Your task to perform on an android device: How do I get to the nearest T-Mobile Store? Image 0: 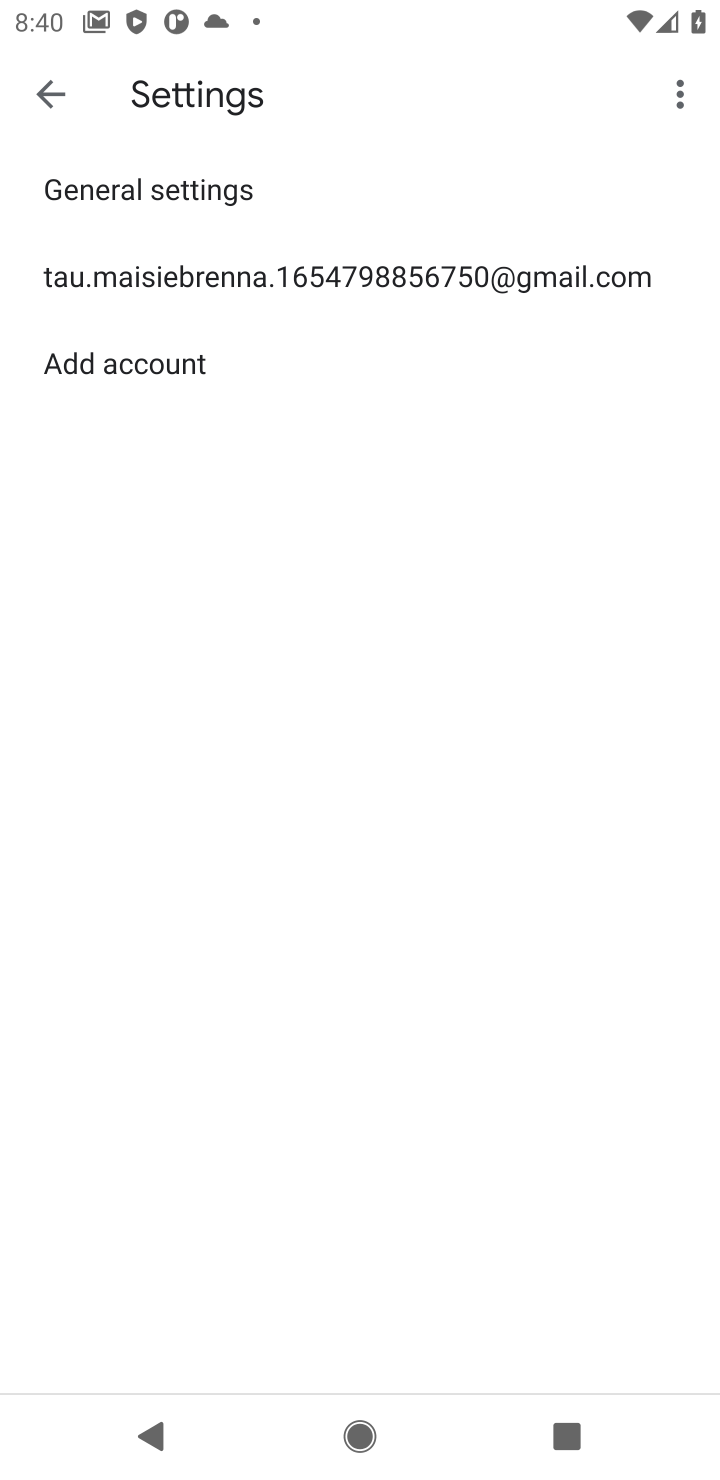
Step 0: press home button
Your task to perform on an android device: How do I get to the nearest T-Mobile Store? Image 1: 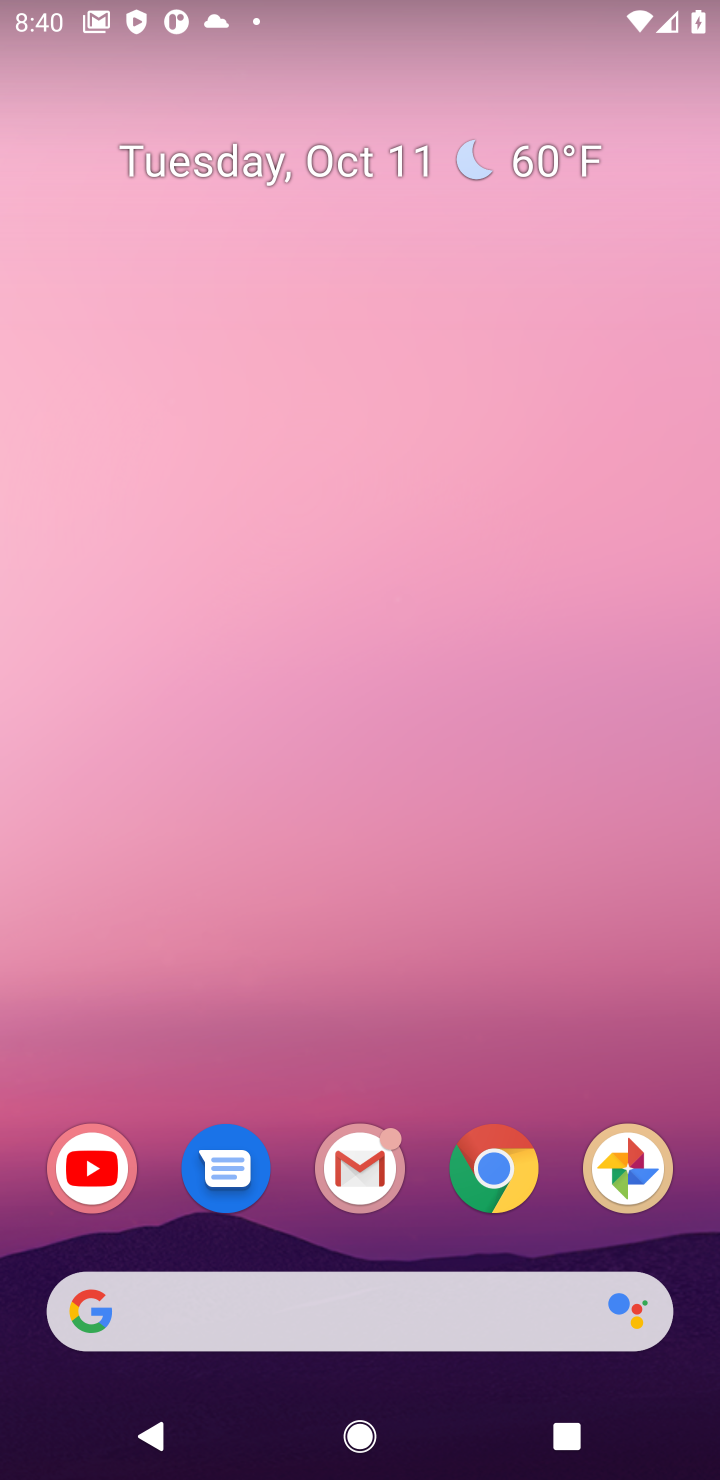
Step 1: click (509, 1173)
Your task to perform on an android device: How do I get to the nearest T-Mobile Store? Image 2: 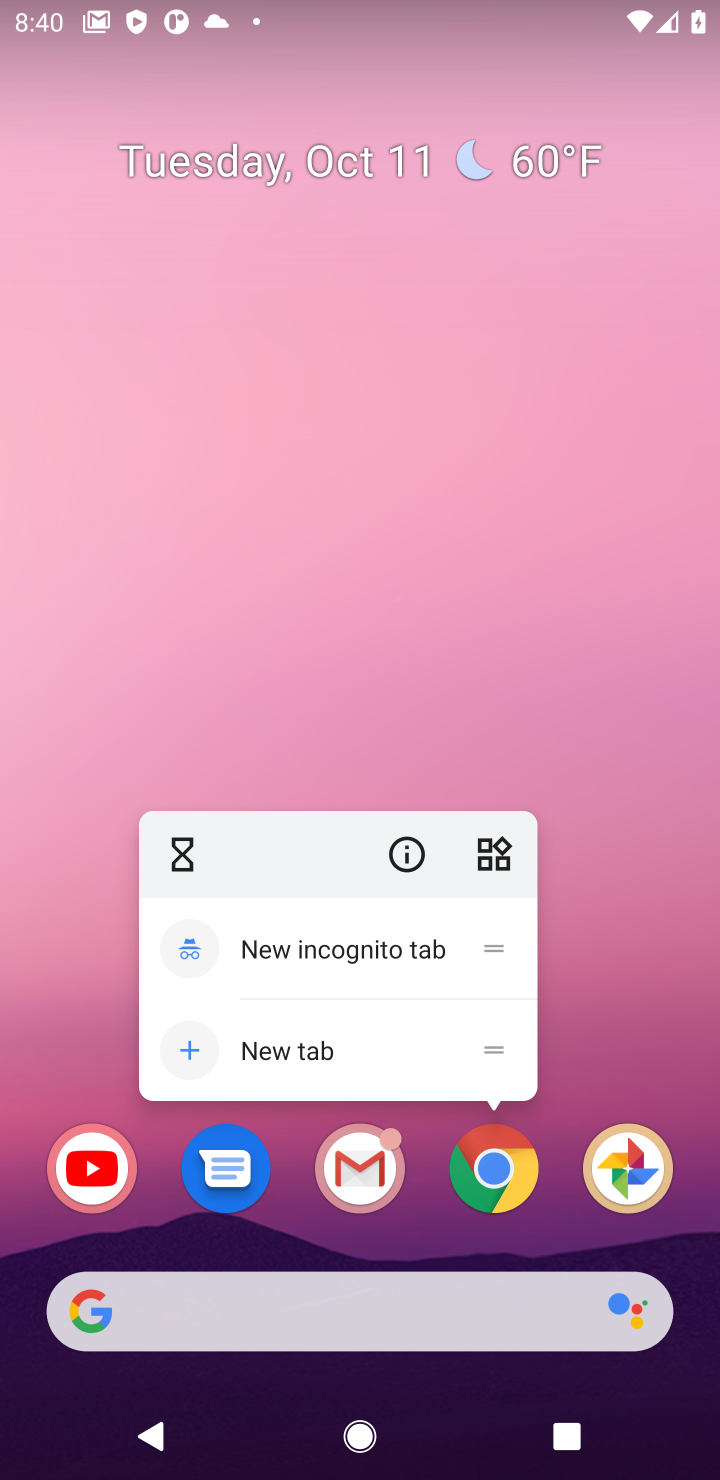
Step 2: press home button
Your task to perform on an android device: How do I get to the nearest T-Mobile Store? Image 3: 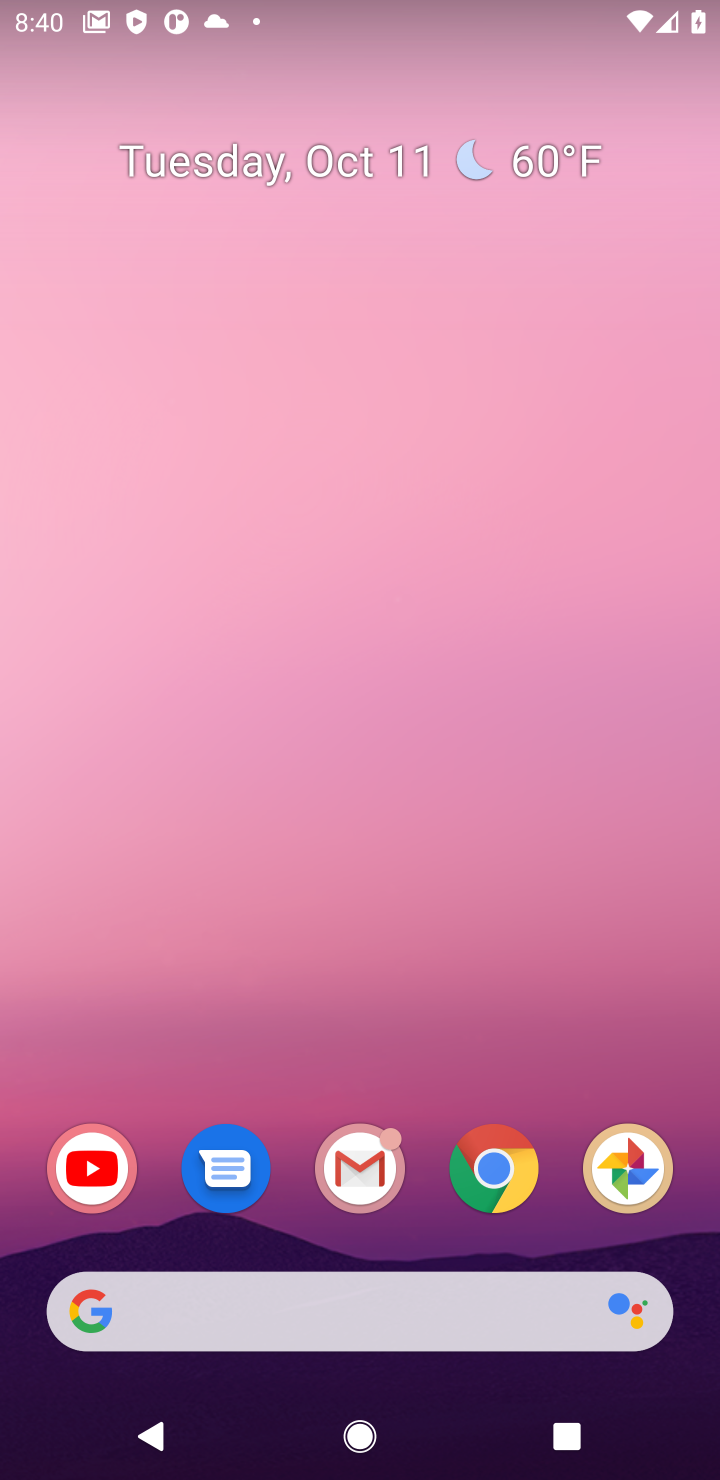
Step 3: press back button
Your task to perform on an android device: How do I get to the nearest T-Mobile Store? Image 4: 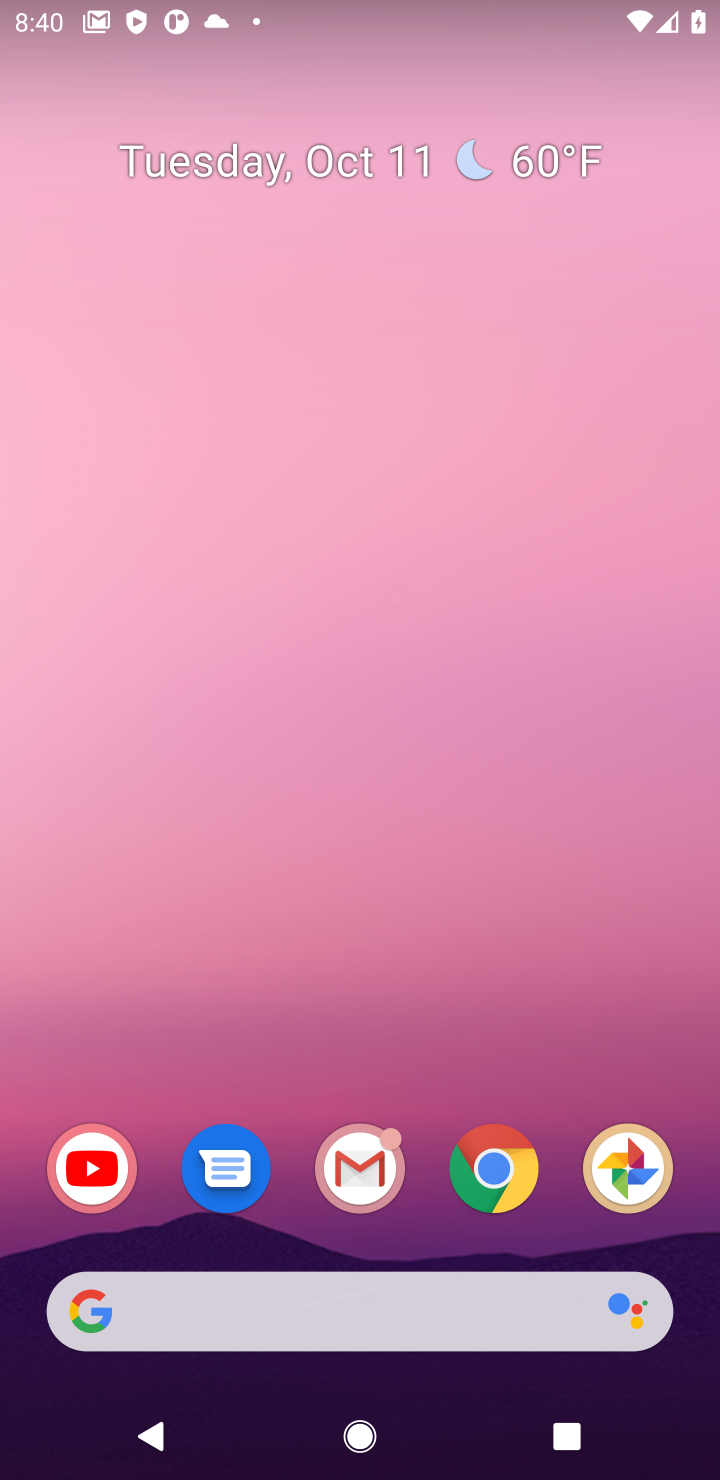
Step 4: press back button
Your task to perform on an android device: How do I get to the nearest T-Mobile Store? Image 5: 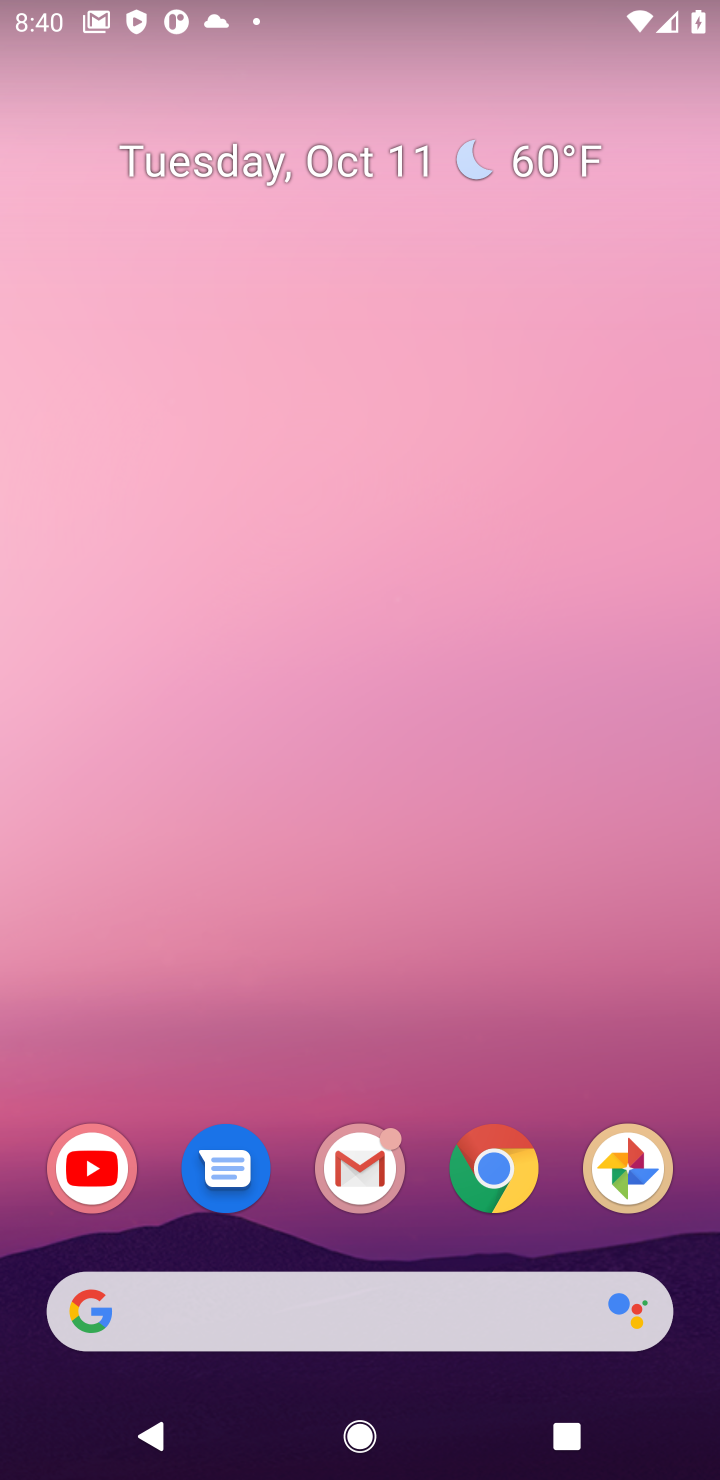
Step 5: press home button
Your task to perform on an android device: How do I get to the nearest T-Mobile Store? Image 6: 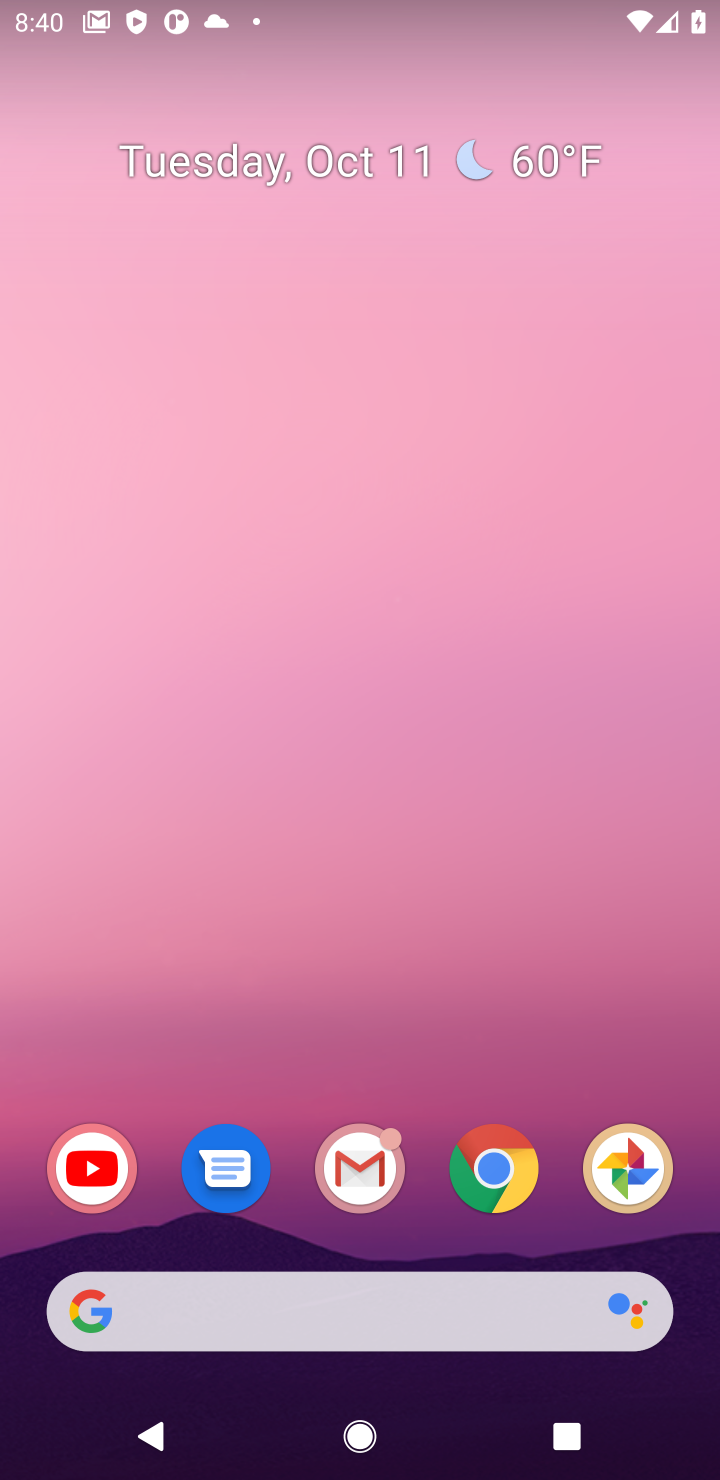
Step 6: press home button
Your task to perform on an android device: How do I get to the nearest T-Mobile Store? Image 7: 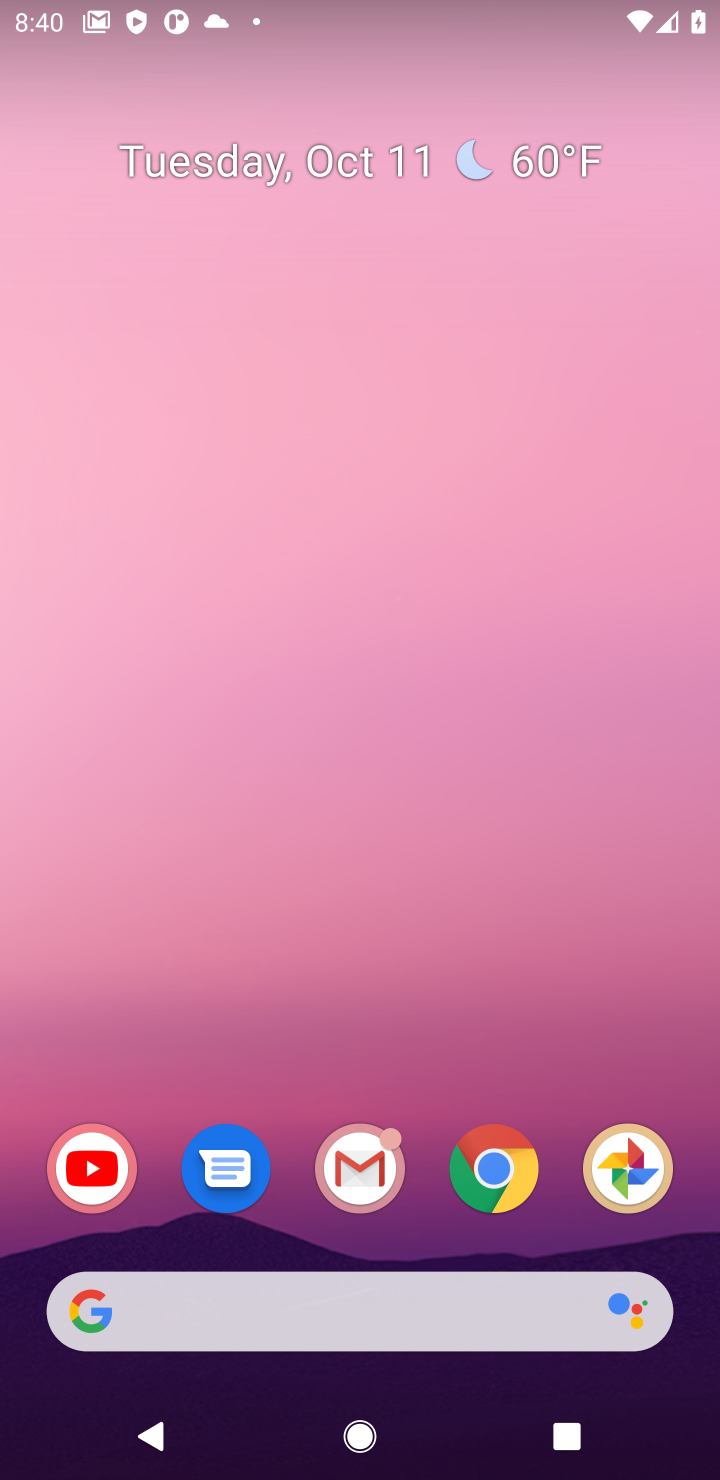
Step 7: click (514, 1158)
Your task to perform on an android device: How do I get to the nearest T-Mobile Store? Image 8: 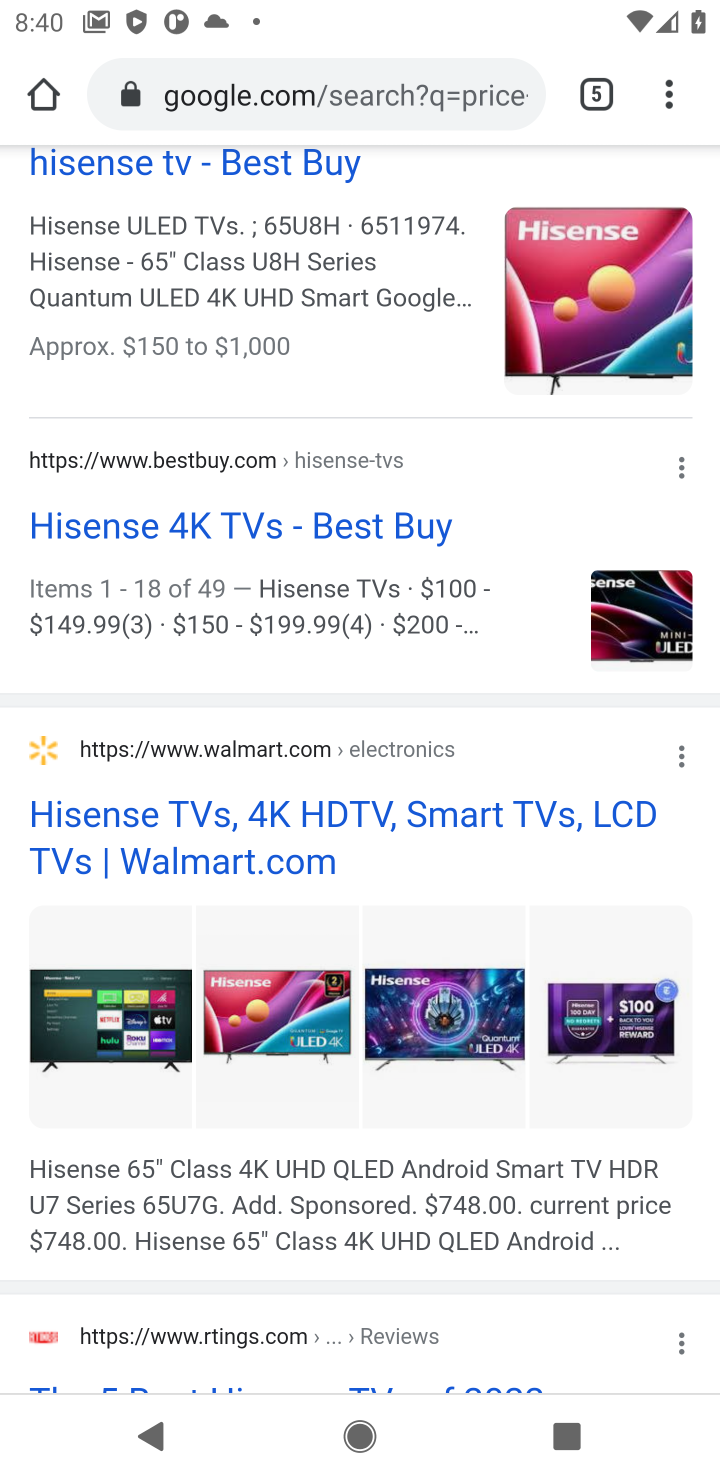
Step 8: click (422, 89)
Your task to perform on an android device: How do I get to the nearest T-Mobile Store? Image 9: 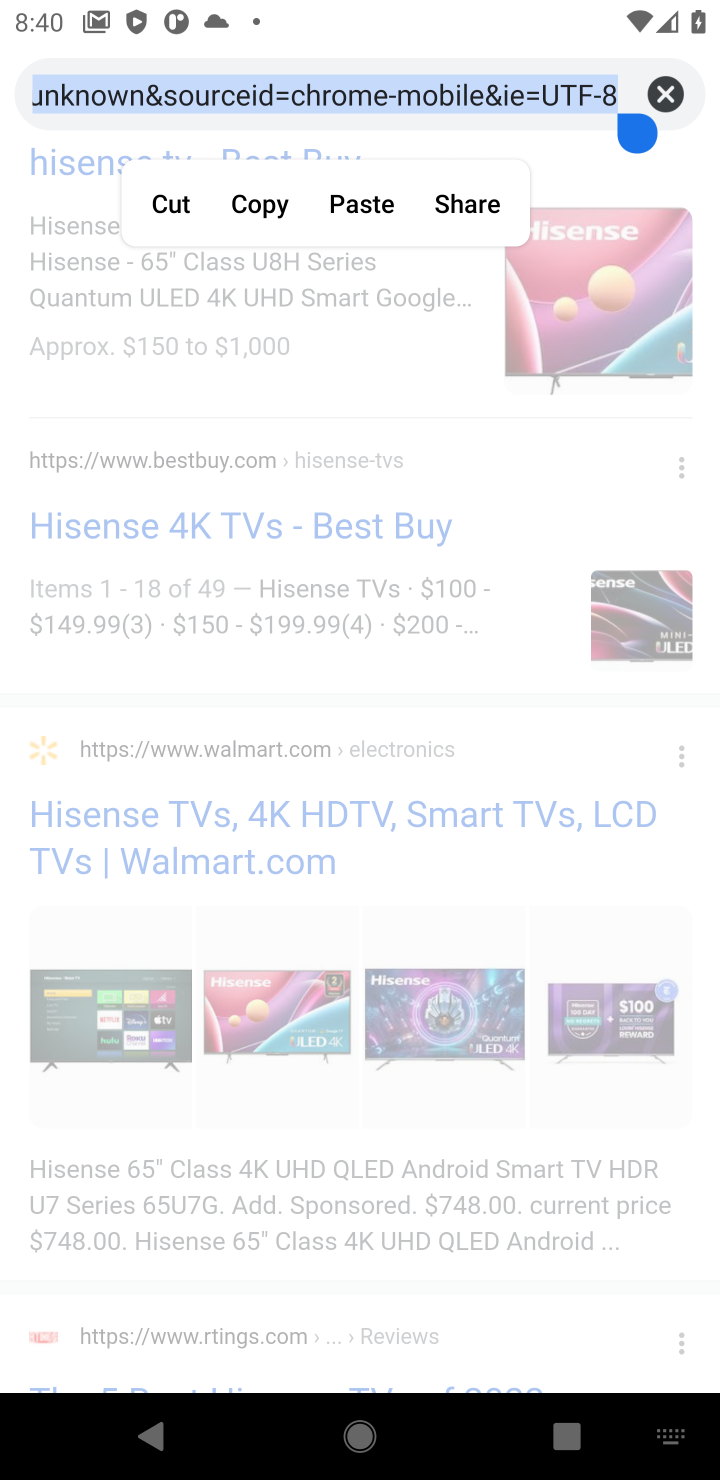
Step 9: click (663, 86)
Your task to perform on an android device: How do I get to the nearest T-Mobile Store? Image 10: 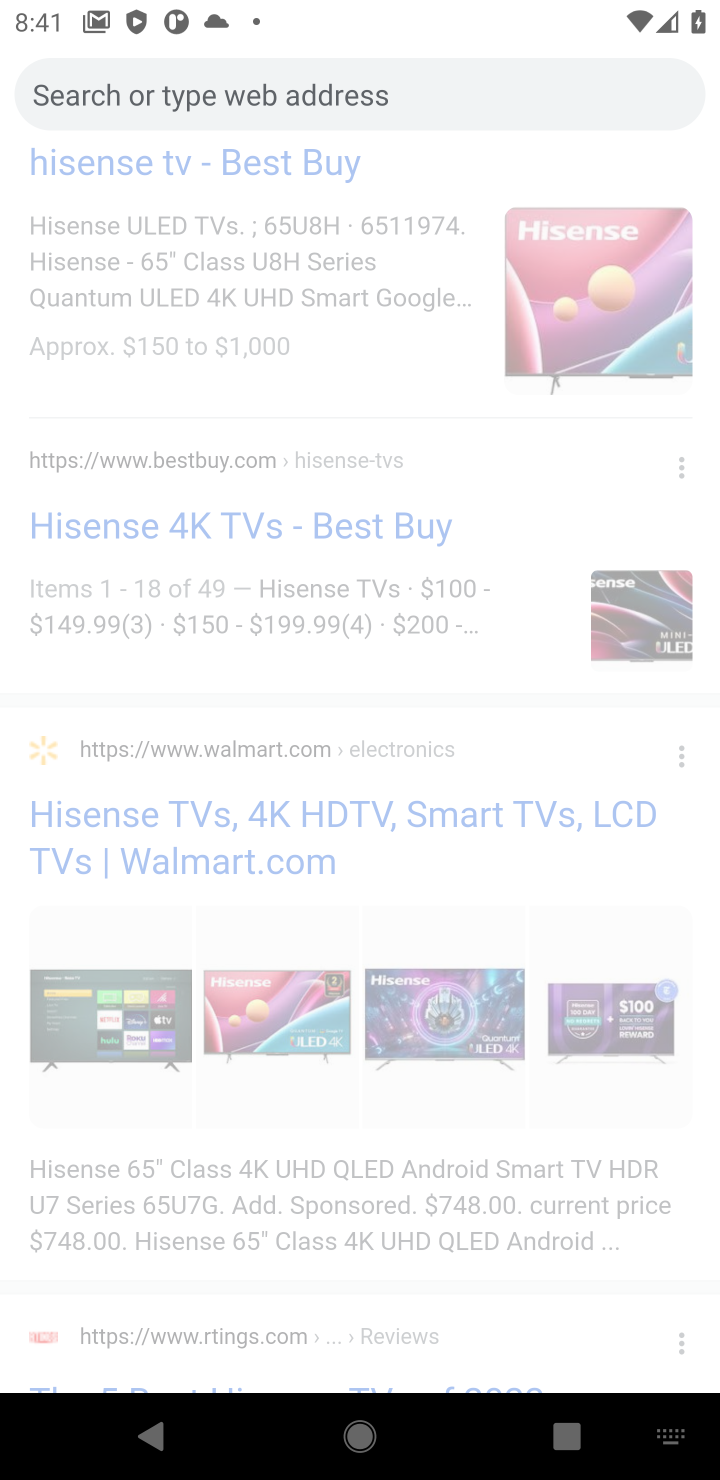
Step 10: type "nearest t mobile store"
Your task to perform on an android device: How do I get to the nearest T-Mobile Store? Image 11: 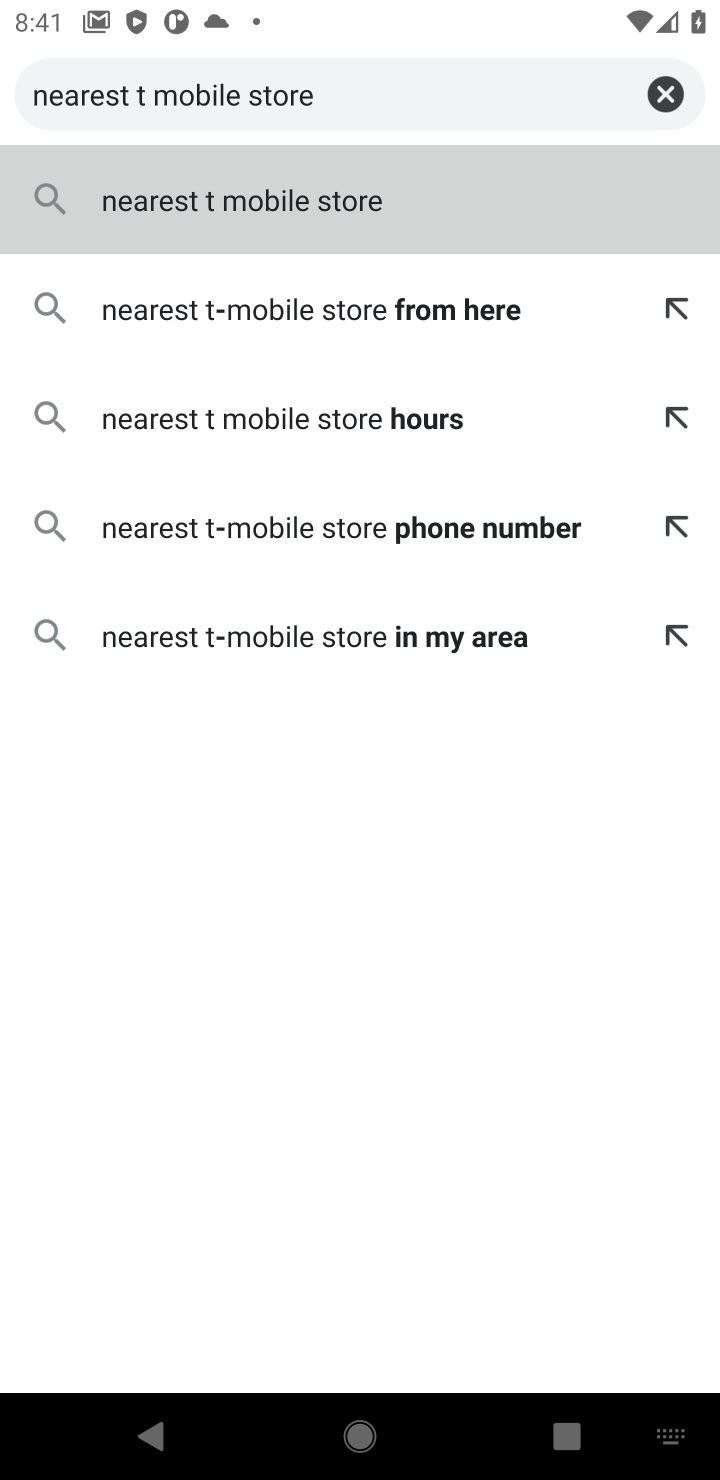
Step 11: click (298, 205)
Your task to perform on an android device: How do I get to the nearest T-Mobile Store? Image 12: 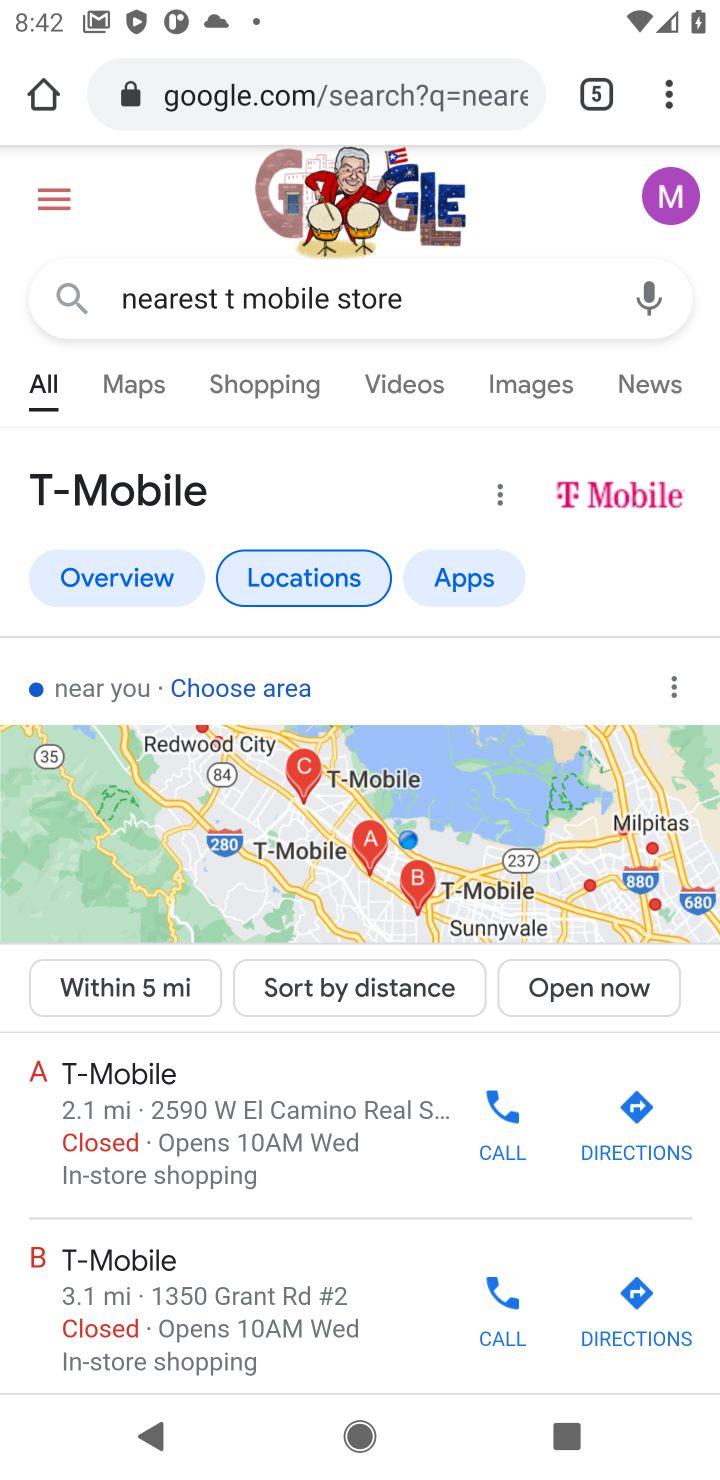
Step 12: task complete